Your task to perform on an android device: Check the news Image 0: 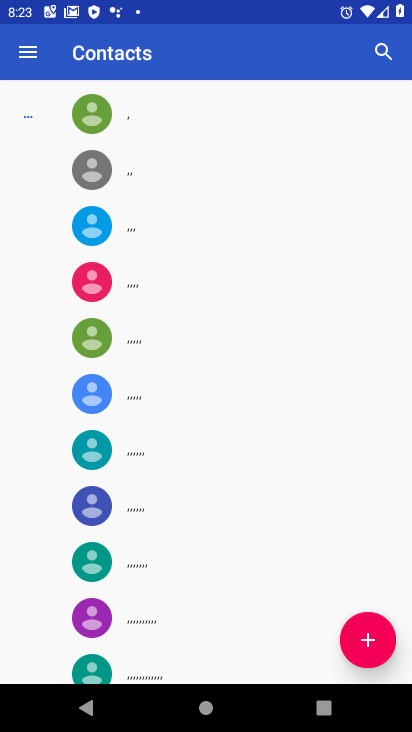
Step 0: press back button
Your task to perform on an android device: Check the news Image 1: 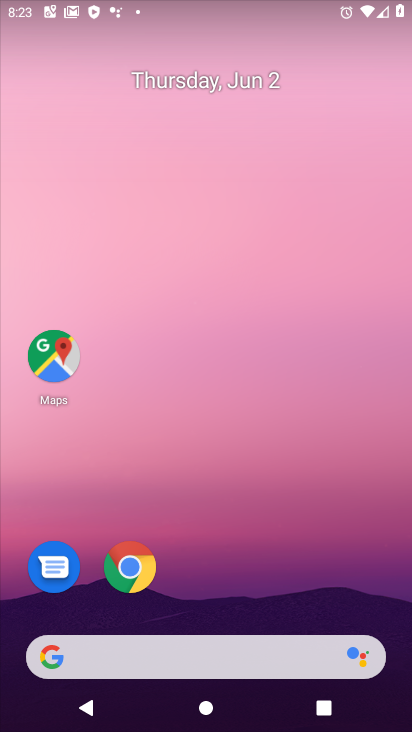
Step 1: drag from (266, 582) to (195, 149)
Your task to perform on an android device: Check the news Image 2: 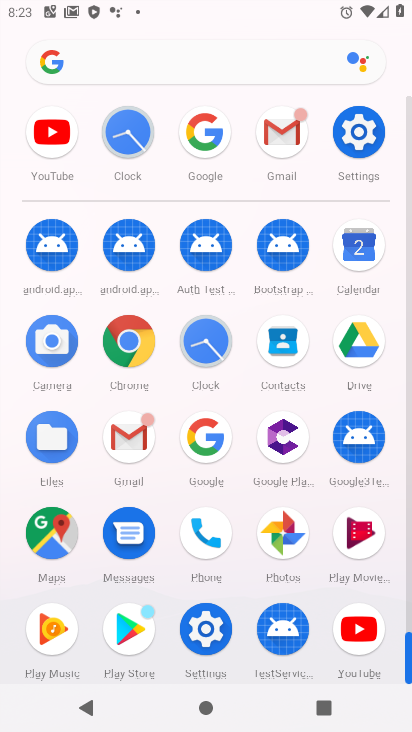
Step 2: click (201, 436)
Your task to perform on an android device: Check the news Image 3: 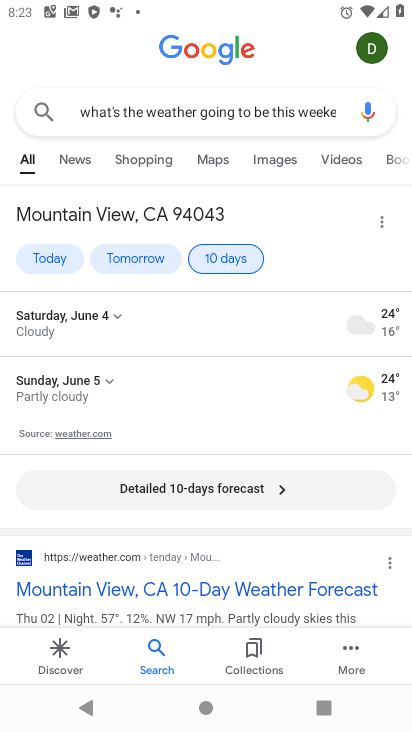
Step 3: click (279, 107)
Your task to perform on an android device: Check the news Image 4: 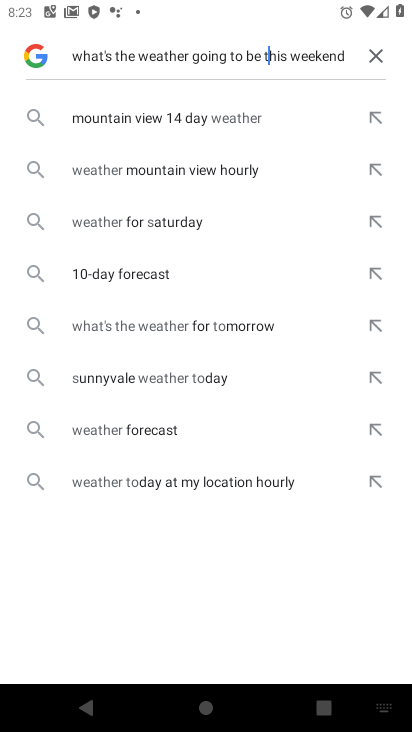
Step 4: click (381, 58)
Your task to perform on an android device: Check the news Image 5: 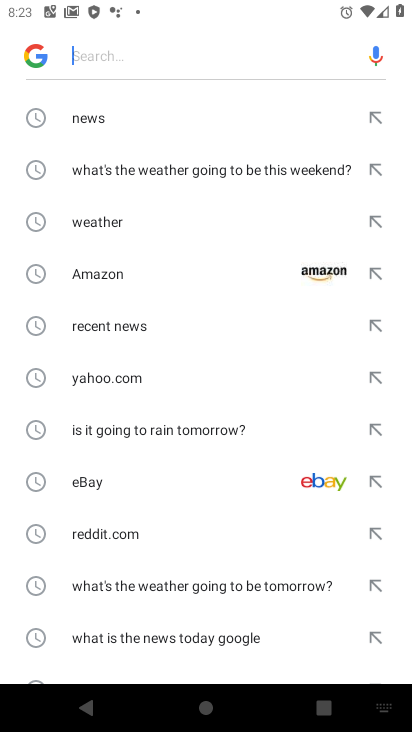
Step 5: type "news"
Your task to perform on an android device: Check the news Image 6: 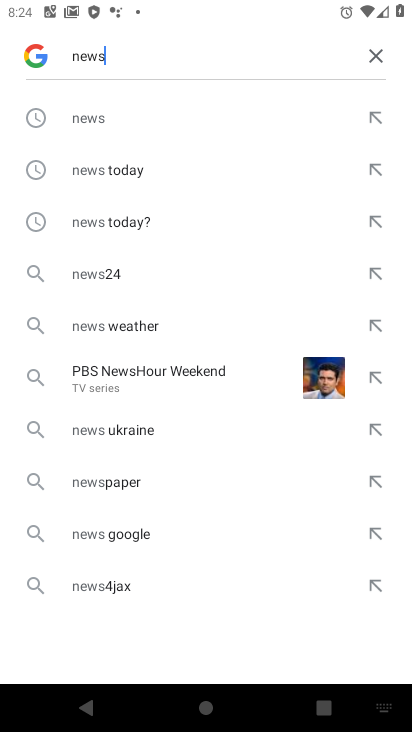
Step 6: click (94, 117)
Your task to perform on an android device: Check the news Image 7: 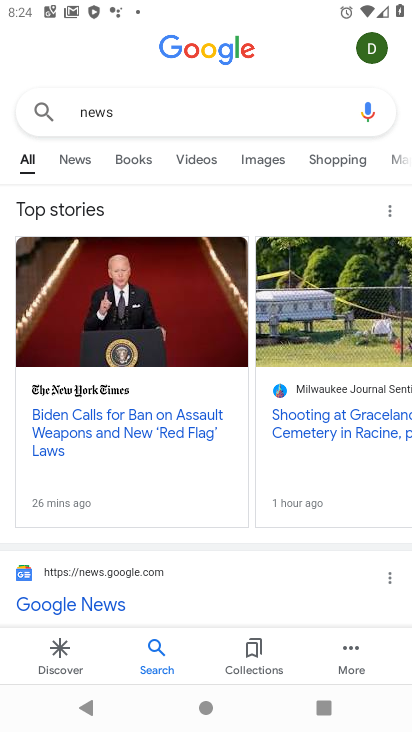
Step 7: task complete